Your task to perform on an android device: Open settings Image 0: 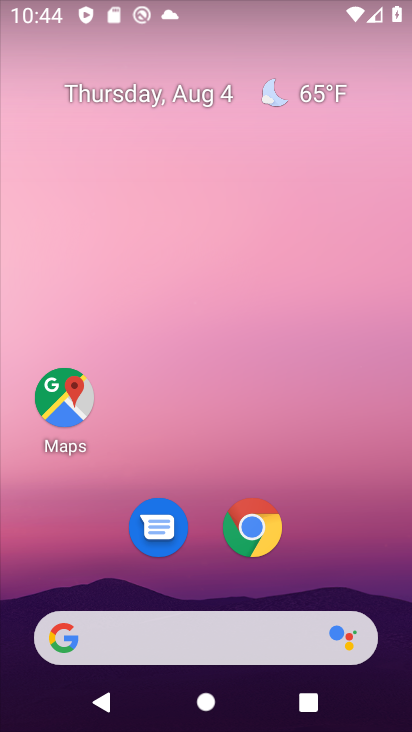
Step 0: drag from (251, 711) to (265, 69)
Your task to perform on an android device: Open settings Image 1: 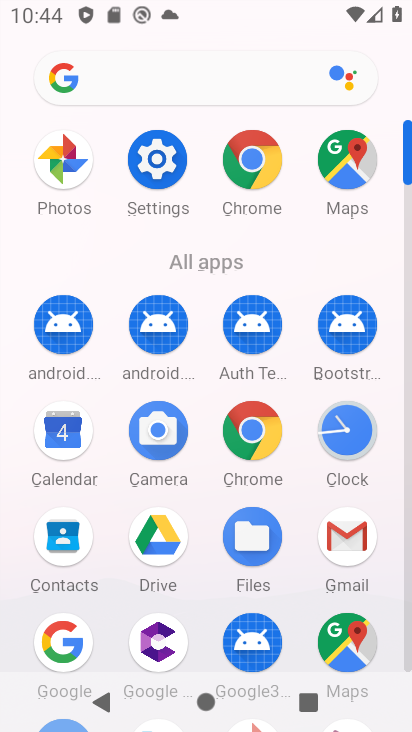
Step 1: click (165, 160)
Your task to perform on an android device: Open settings Image 2: 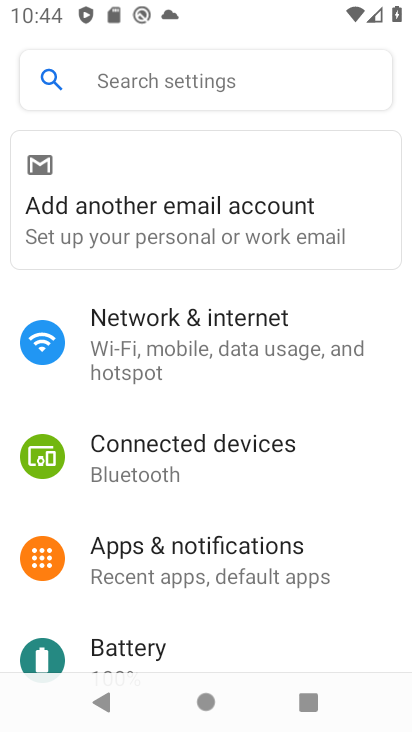
Step 2: task complete